Your task to perform on an android device: check storage Image 0: 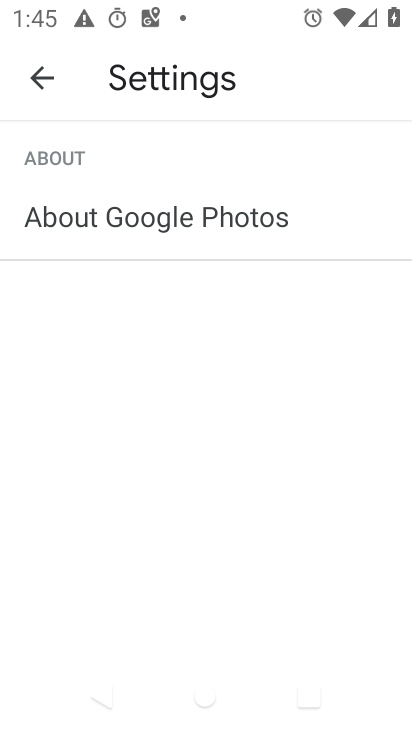
Step 0: press back button
Your task to perform on an android device: check storage Image 1: 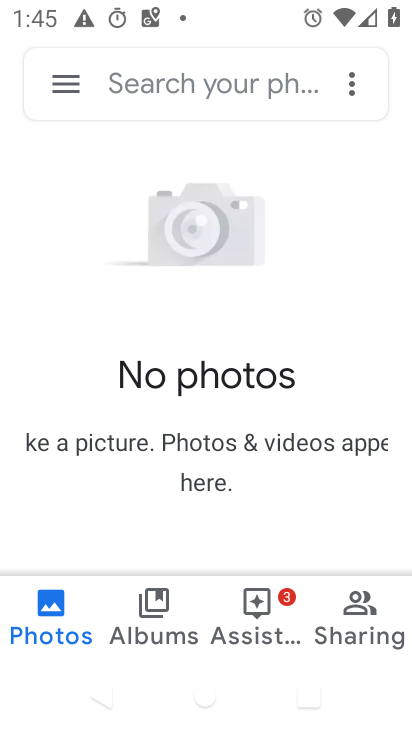
Step 1: press back button
Your task to perform on an android device: check storage Image 2: 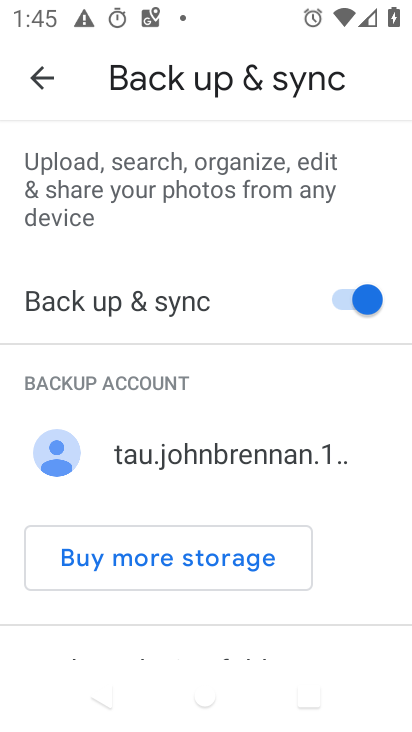
Step 2: click (49, 68)
Your task to perform on an android device: check storage Image 3: 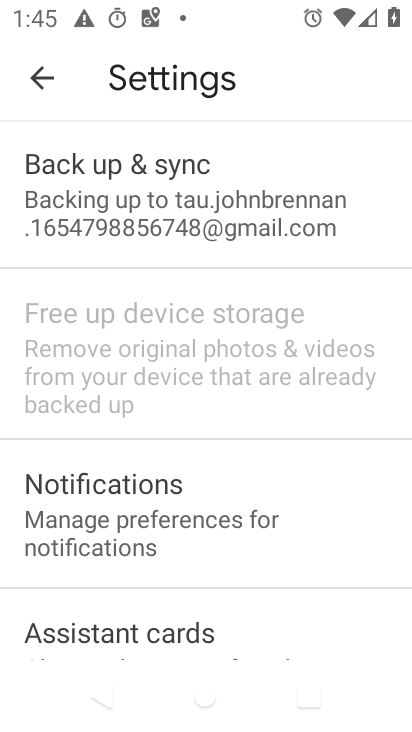
Step 3: drag from (154, 568) to (230, 19)
Your task to perform on an android device: check storage Image 4: 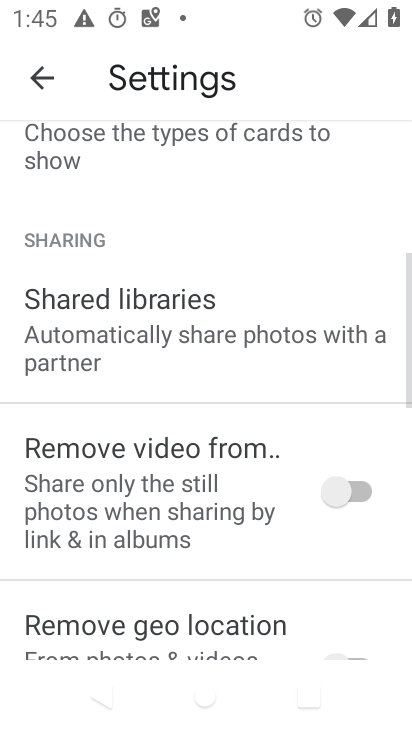
Step 4: drag from (175, 546) to (217, 39)
Your task to perform on an android device: check storage Image 5: 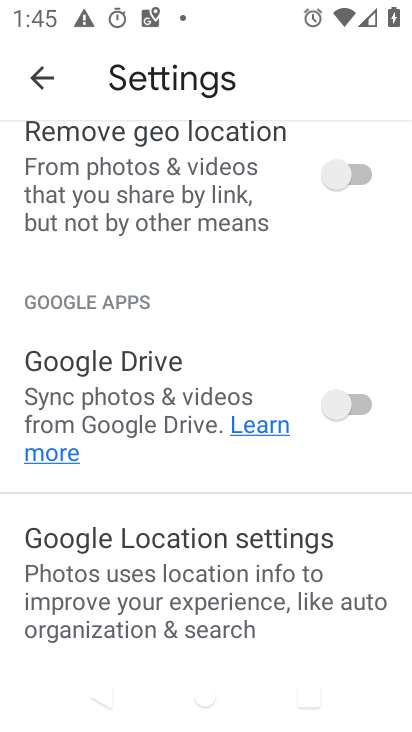
Step 5: click (44, 61)
Your task to perform on an android device: check storage Image 6: 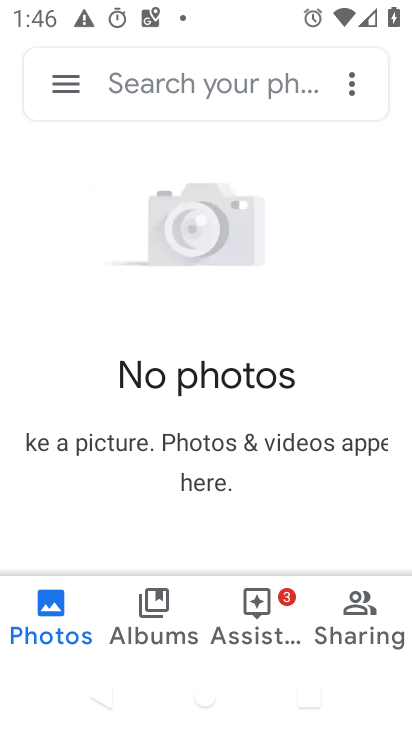
Step 6: press back button
Your task to perform on an android device: check storage Image 7: 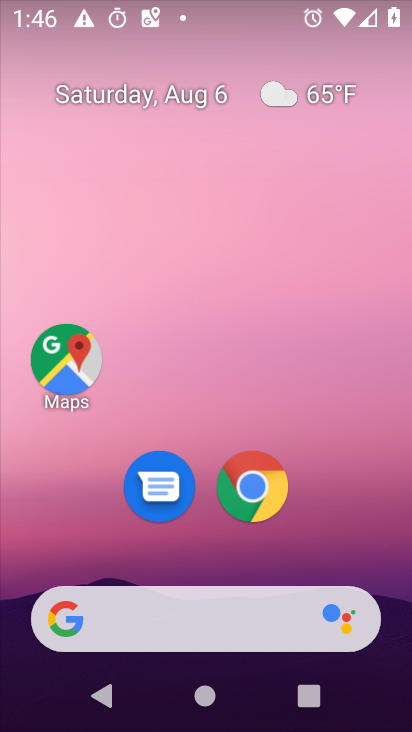
Step 7: drag from (248, 548) to (237, 17)
Your task to perform on an android device: check storage Image 8: 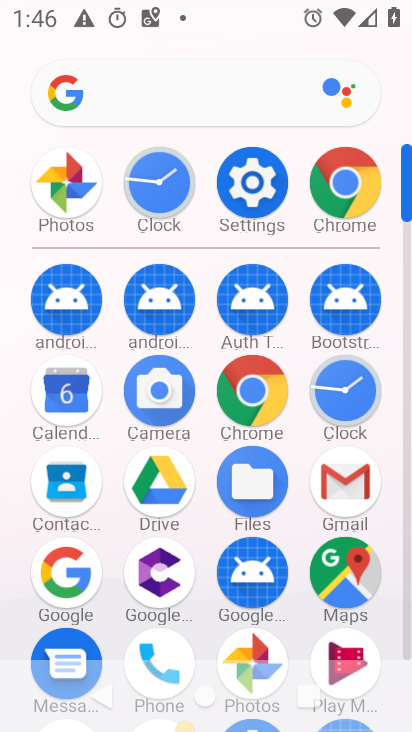
Step 8: click (253, 185)
Your task to perform on an android device: check storage Image 9: 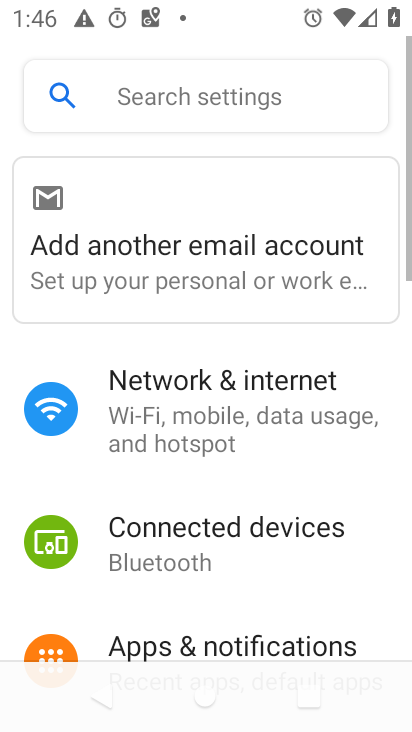
Step 9: drag from (181, 595) to (248, 97)
Your task to perform on an android device: check storage Image 10: 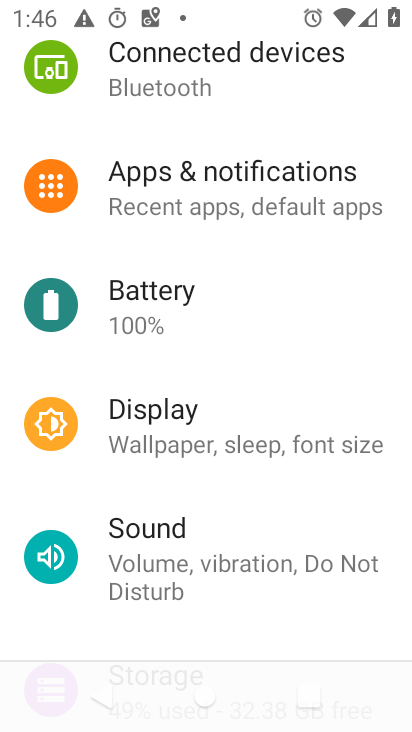
Step 10: drag from (230, 570) to (314, 16)
Your task to perform on an android device: check storage Image 11: 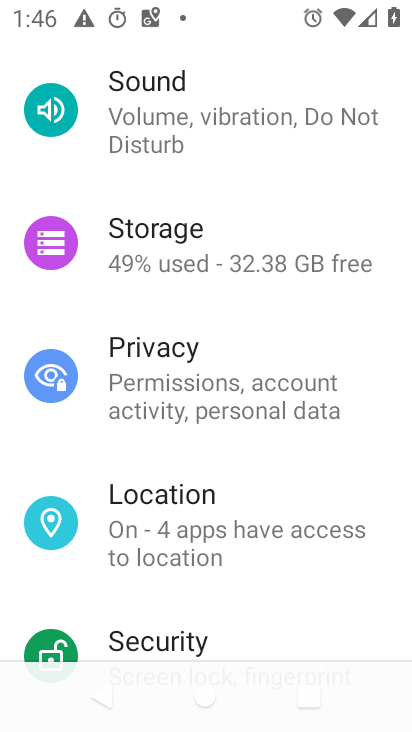
Step 11: click (164, 256)
Your task to perform on an android device: check storage Image 12: 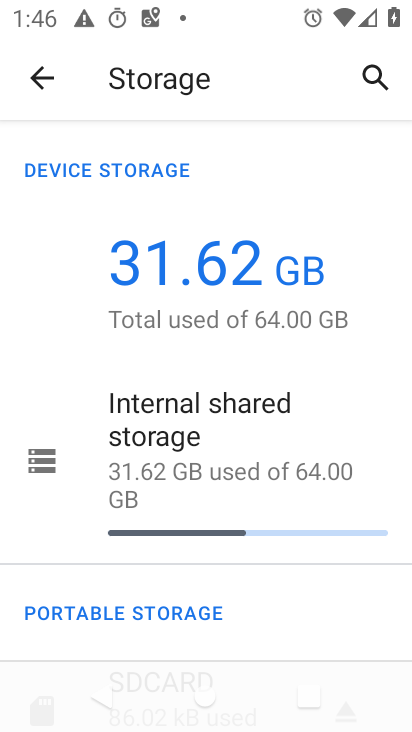
Step 12: task complete